Your task to perform on an android device: open app "Speedtest by Ookla" Image 0: 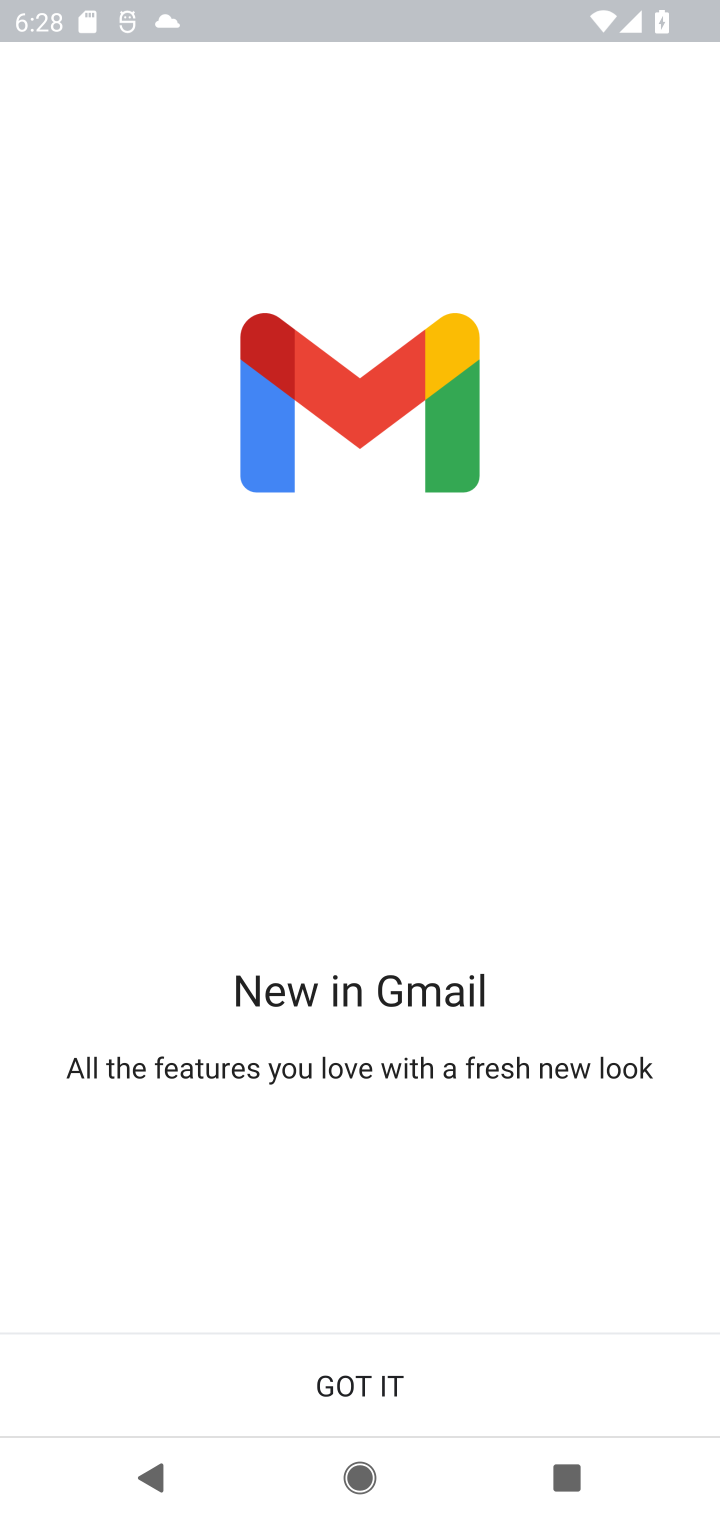
Step 0: press home button
Your task to perform on an android device: open app "Speedtest by Ookla" Image 1: 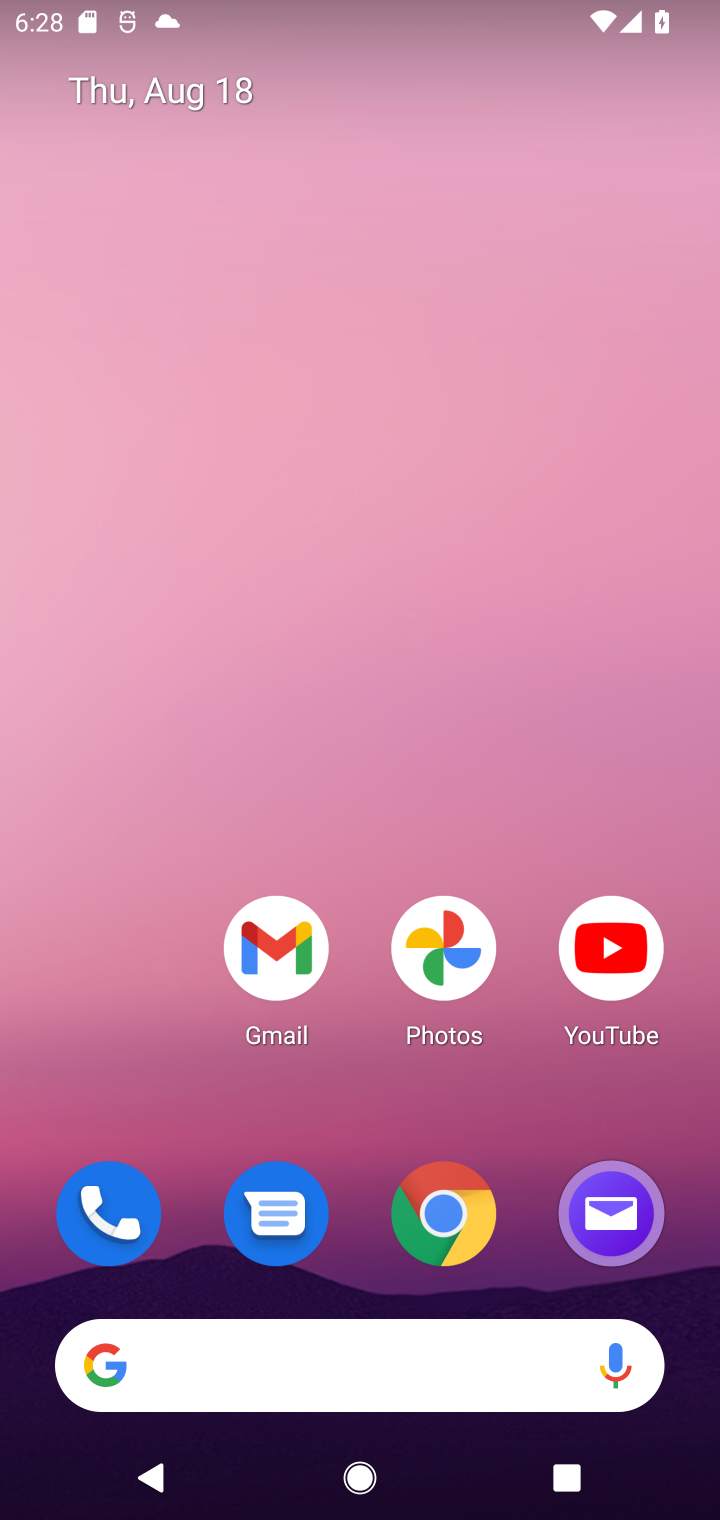
Step 1: drag from (348, 1280) to (352, 133)
Your task to perform on an android device: open app "Speedtest by Ookla" Image 2: 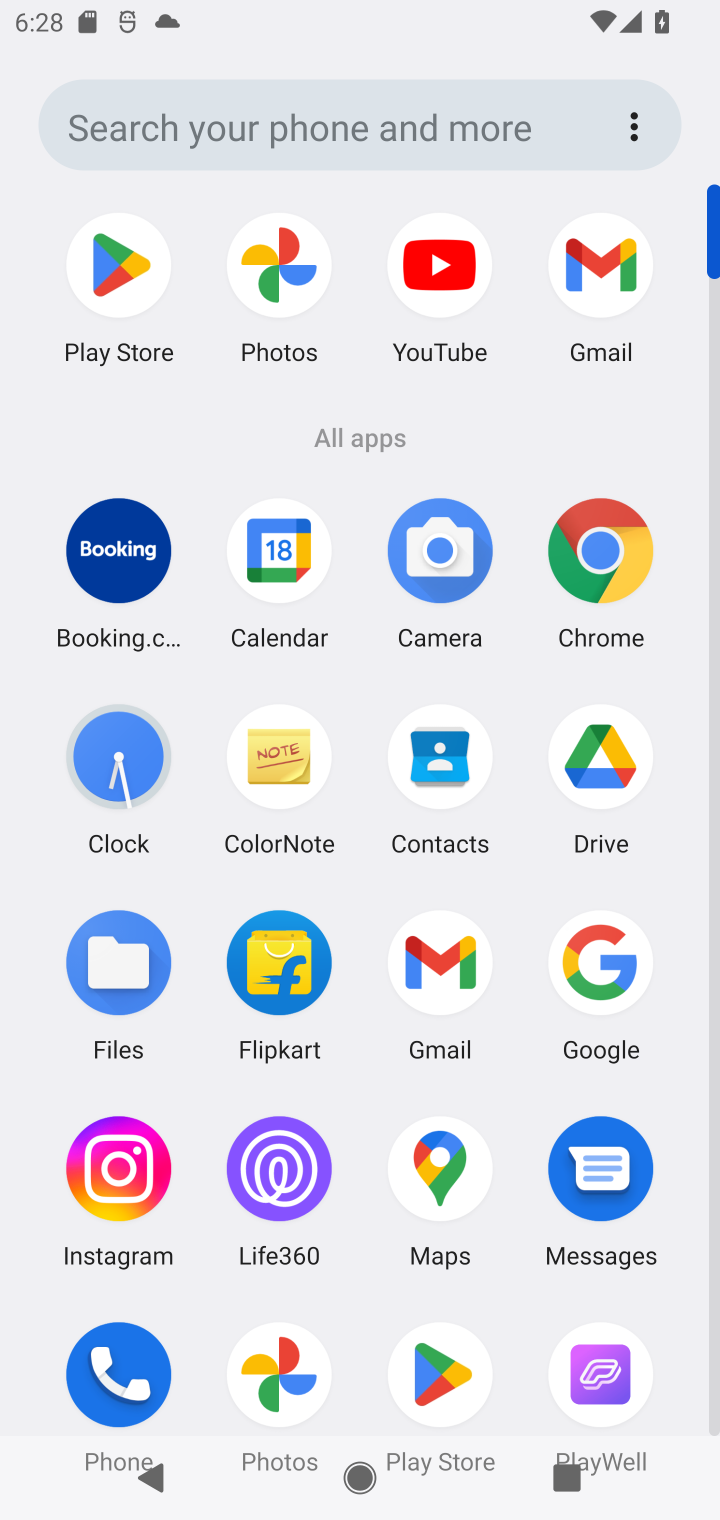
Step 2: click (424, 1358)
Your task to perform on an android device: open app "Speedtest by Ookla" Image 3: 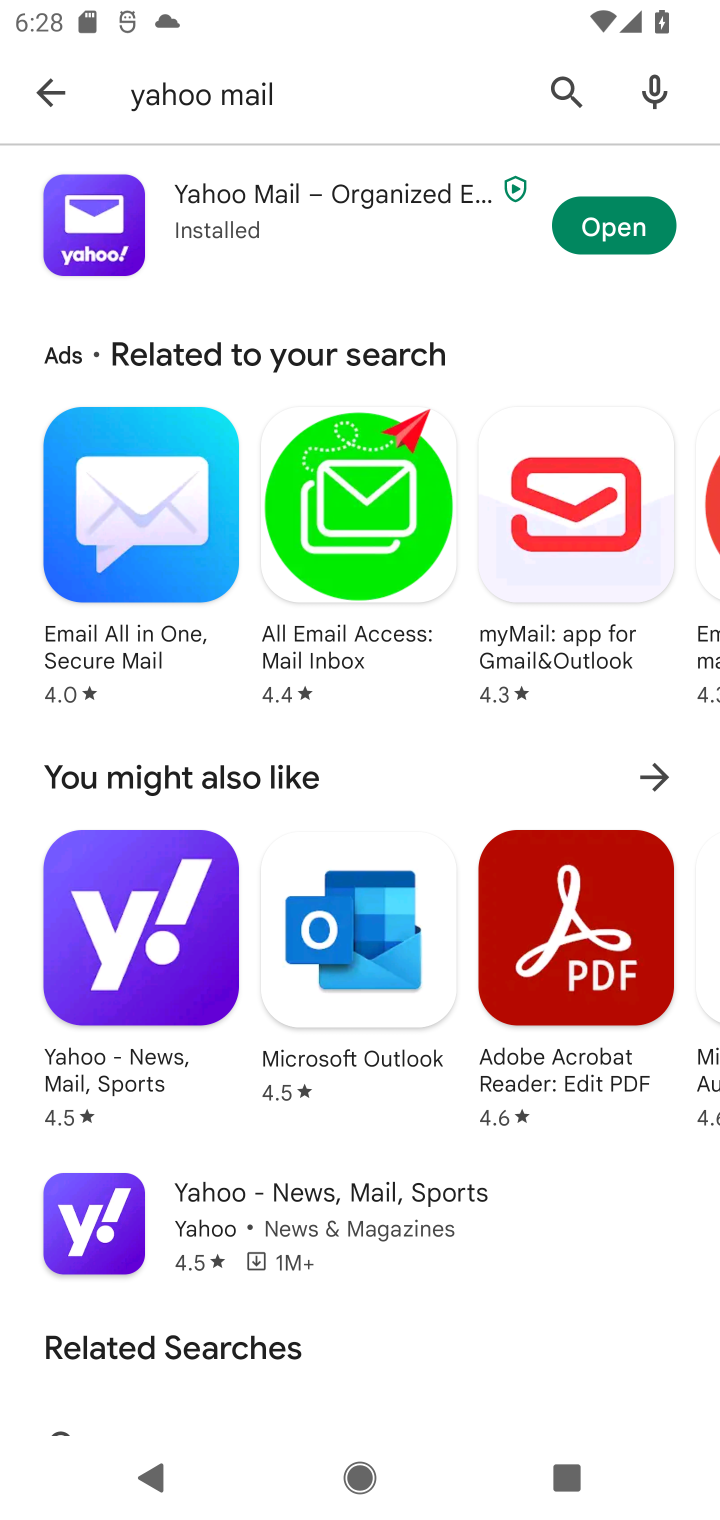
Step 3: click (573, 72)
Your task to perform on an android device: open app "Speedtest by Ookla" Image 4: 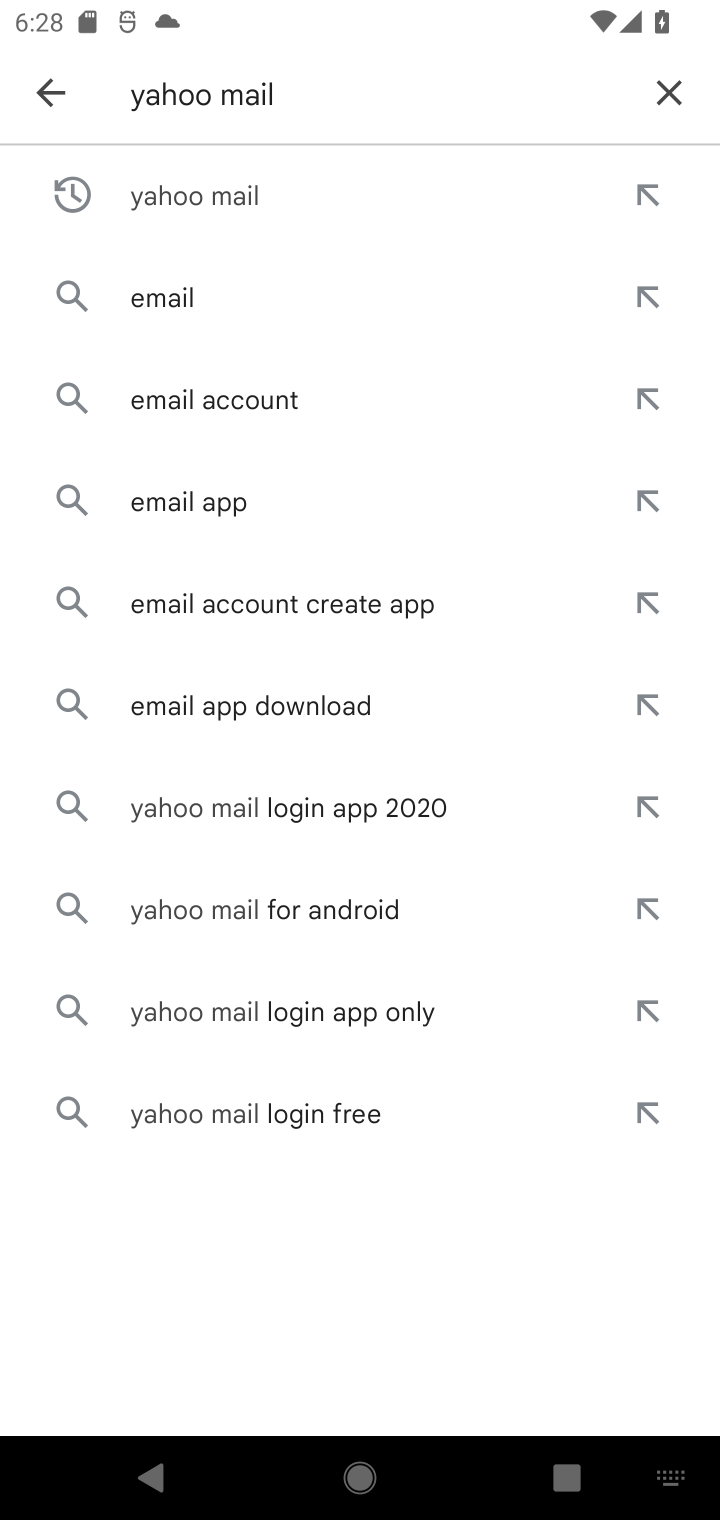
Step 4: click (660, 95)
Your task to perform on an android device: open app "Speedtest by Ookla" Image 5: 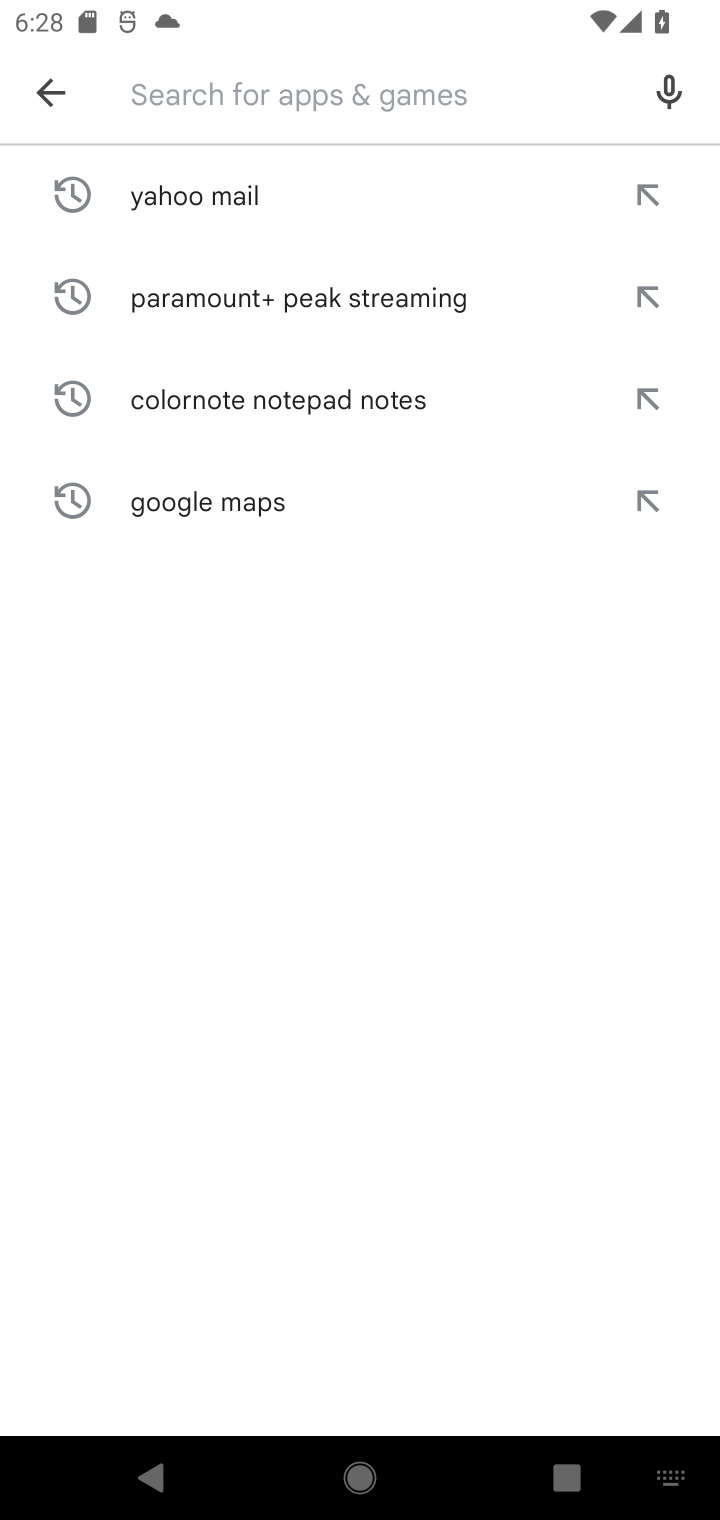
Step 5: type "Speedtest by Ookla"
Your task to perform on an android device: open app "Speedtest by Ookla" Image 6: 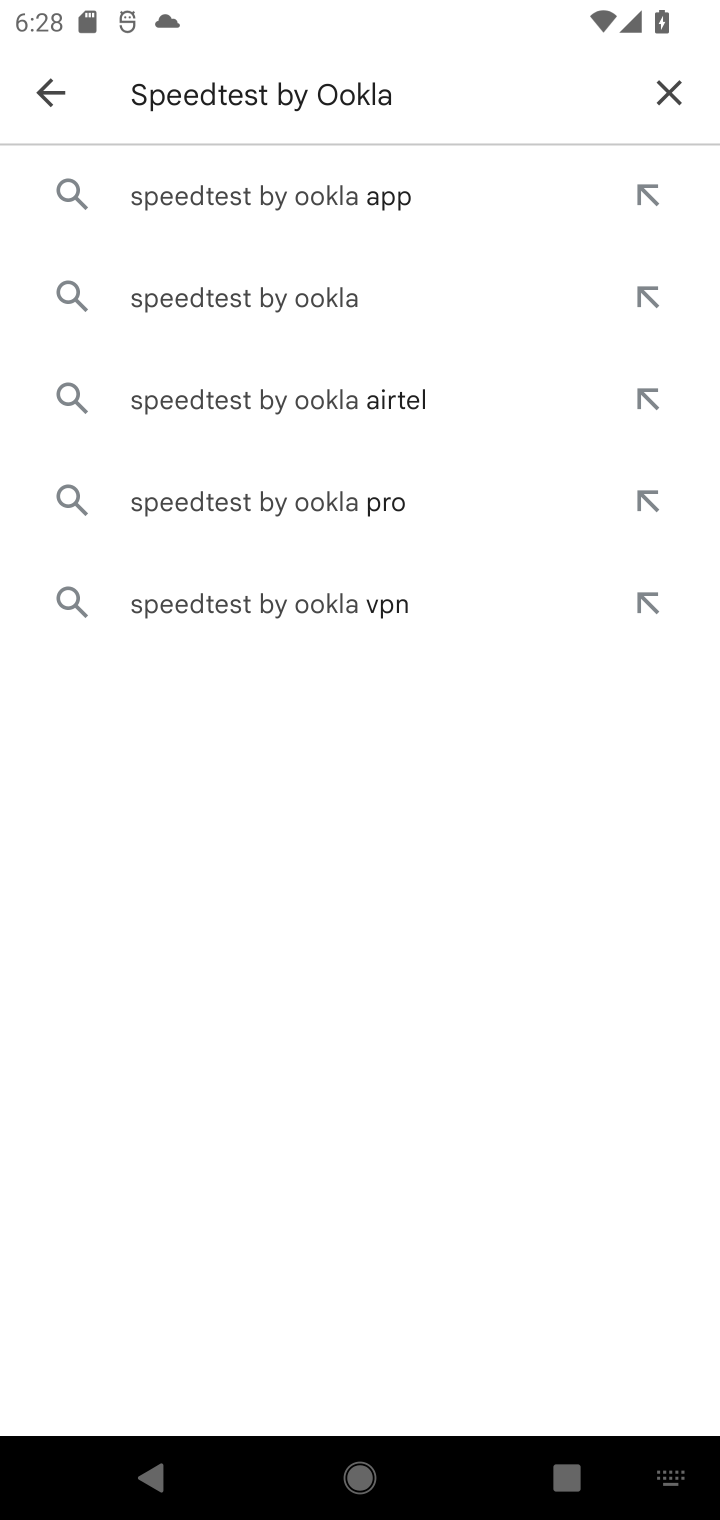
Step 6: click (434, 200)
Your task to perform on an android device: open app "Speedtest by Ookla" Image 7: 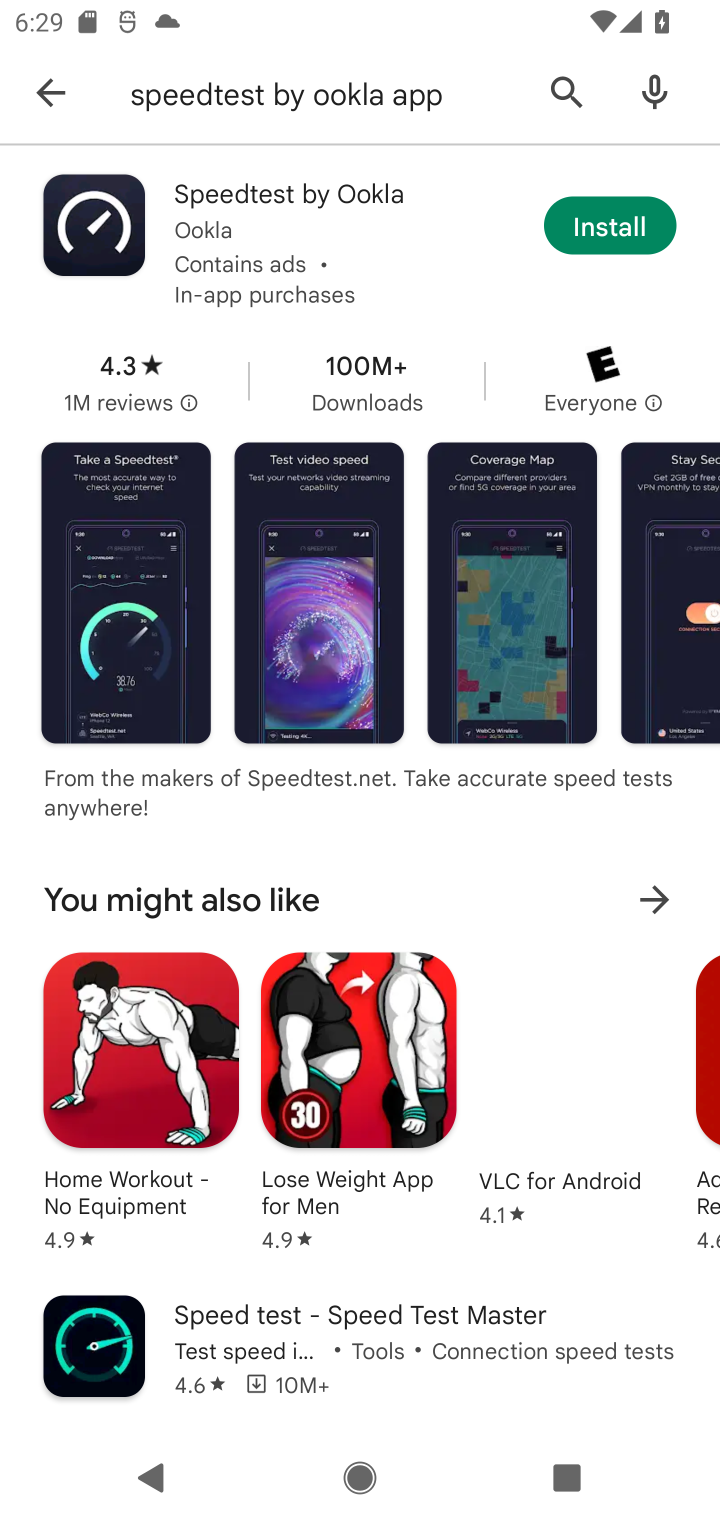
Step 7: task complete